Your task to perform on an android device: Go to sound settings Image 0: 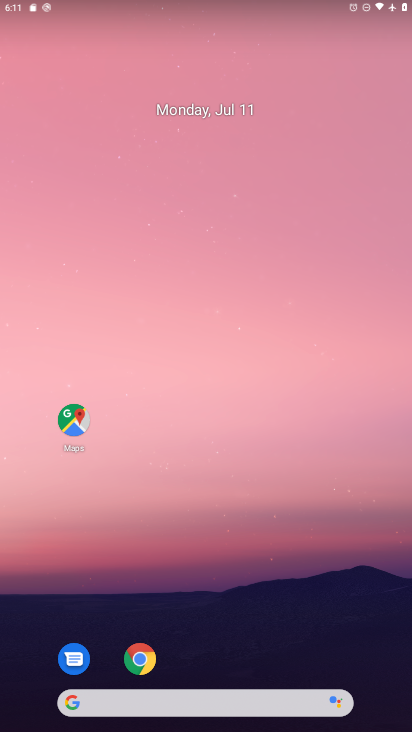
Step 0: drag from (318, 642) to (313, 137)
Your task to perform on an android device: Go to sound settings Image 1: 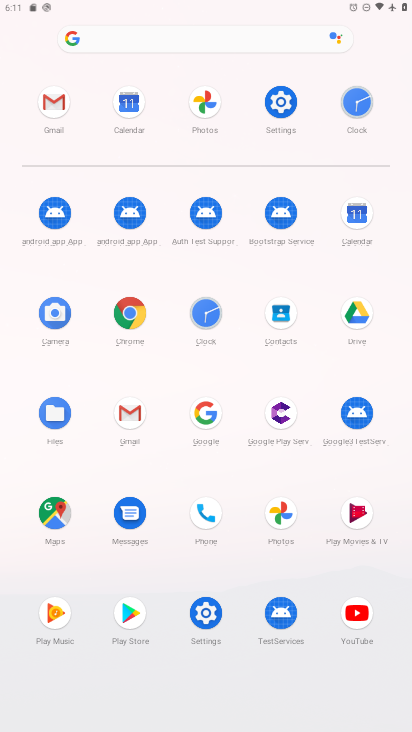
Step 1: click (205, 613)
Your task to perform on an android device: Go to sound settings Image 2: 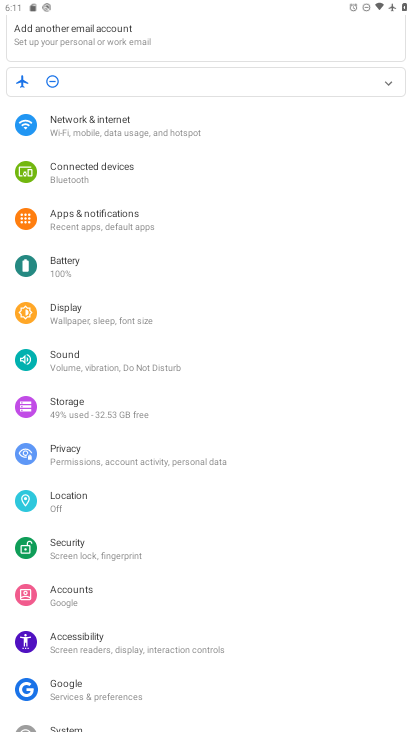
Step 2: click (70, 364)
Your task to perform on an android device: Go to sound settings Image 3: 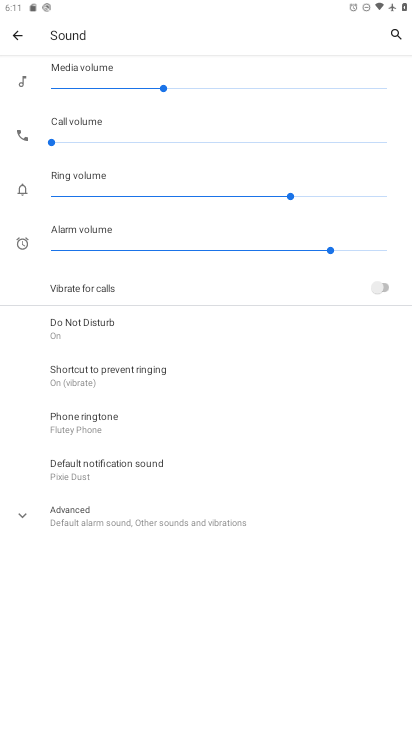
Step 3: click (22, 515)
Your task to perform on an android device: Go to sound settings Image 4: 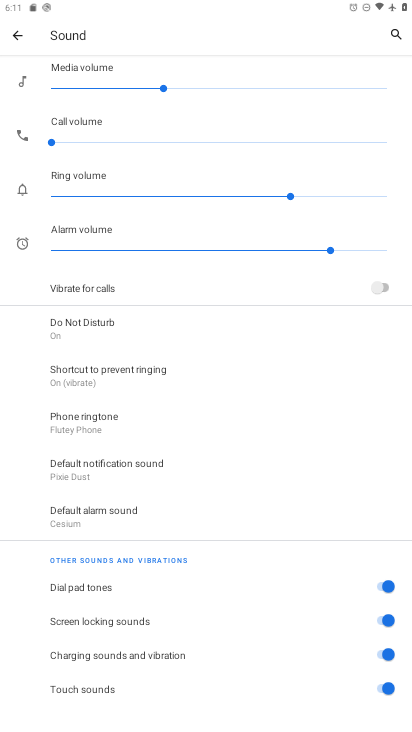
Step 4: task complete